Your task to perform on an android device: Search for "bose soundlink mini" on costco, select the first entry, and add it to the cart. Image 0: 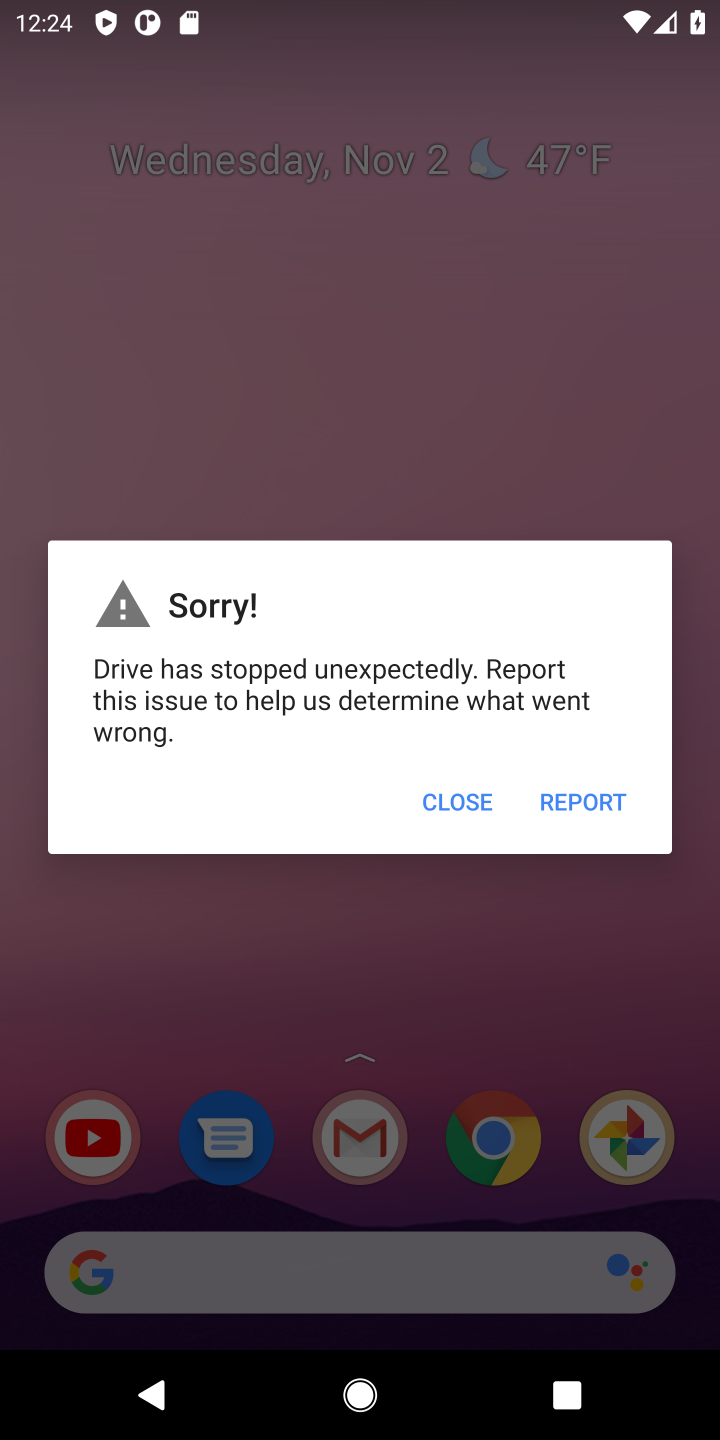
Step 0: press home button
Your task to perform on an android device: Search for "bose soundlink mini" on costco, select the first entry, and add it to the cart. Image 1: 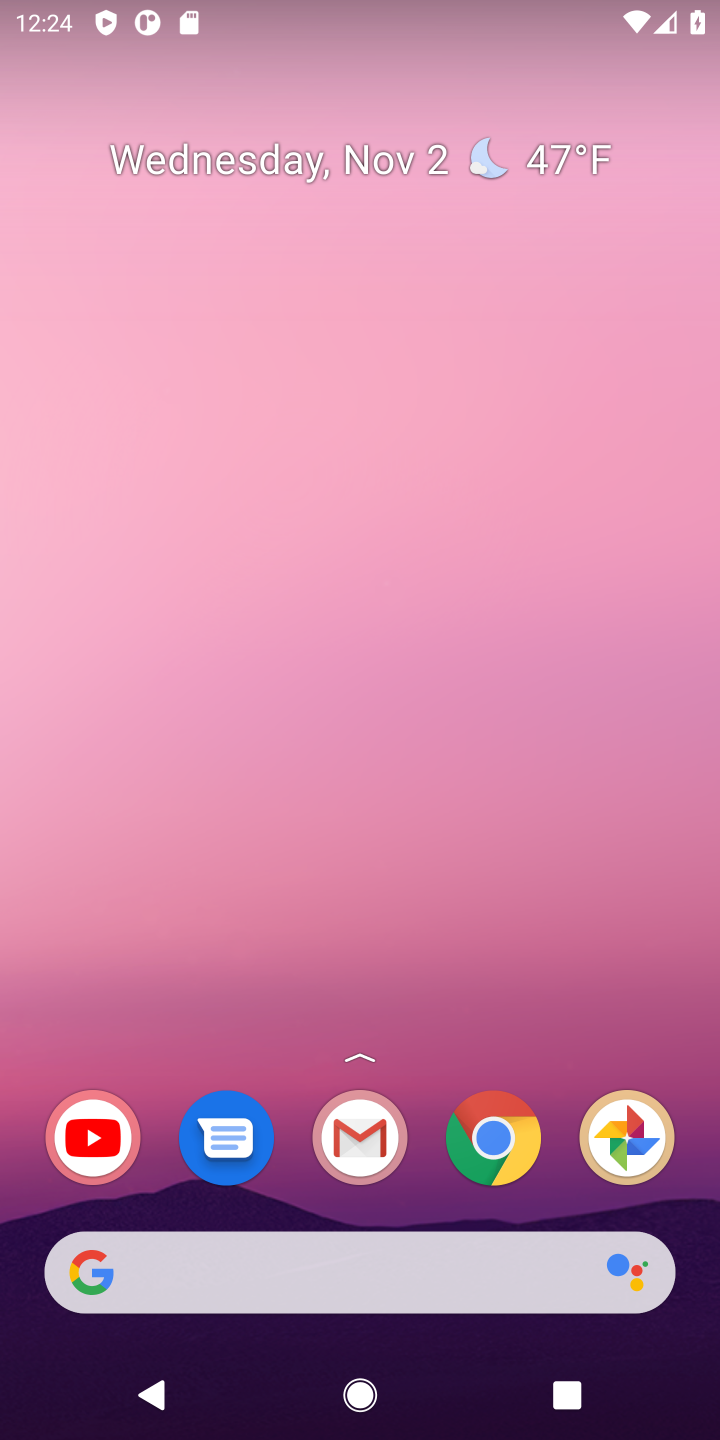
Step 1: drag from (461, 1343) to (705, 426)
Your task to perform on an android device: Search for "bose soundlink mini" on costco, select the first entry, and add it to the cart. Image 2: 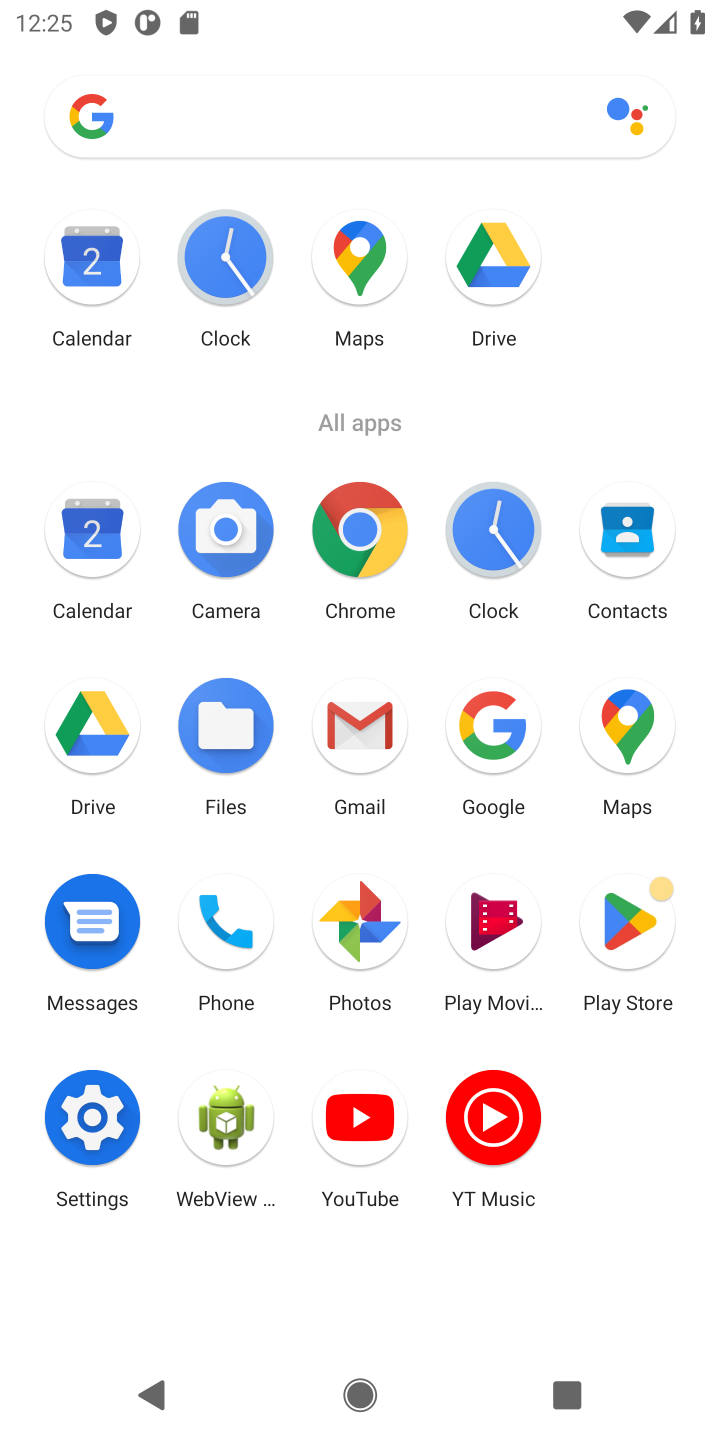
Step 2: click (372, 541)
Your task to perform on an android device: Search for "bose soundlink mini" on costco, select the first entry, and add it to the cart. Image 3: 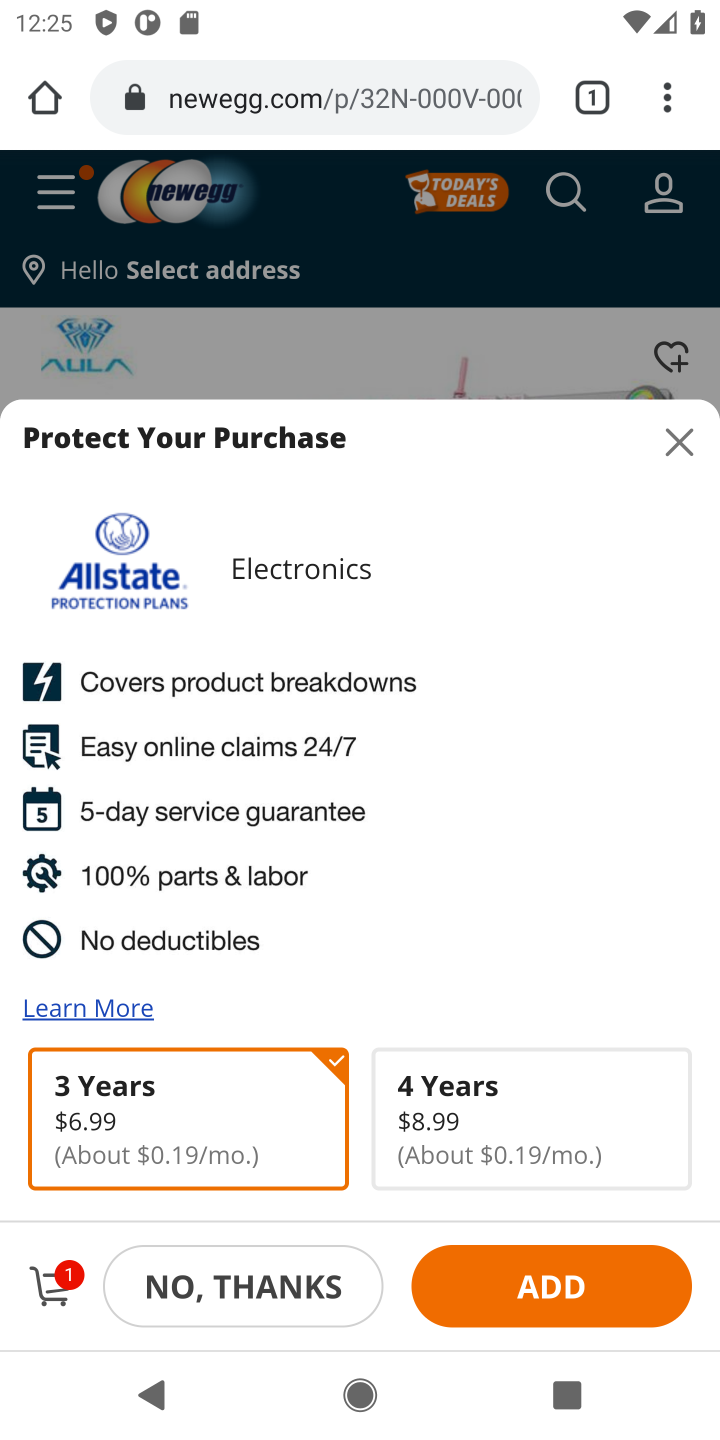
Step 3: click (270, 97)
Your task to perform on an android device: Search for "bose soundlink mini" on costco, select the first entry, and add it to the cart. Image 4: 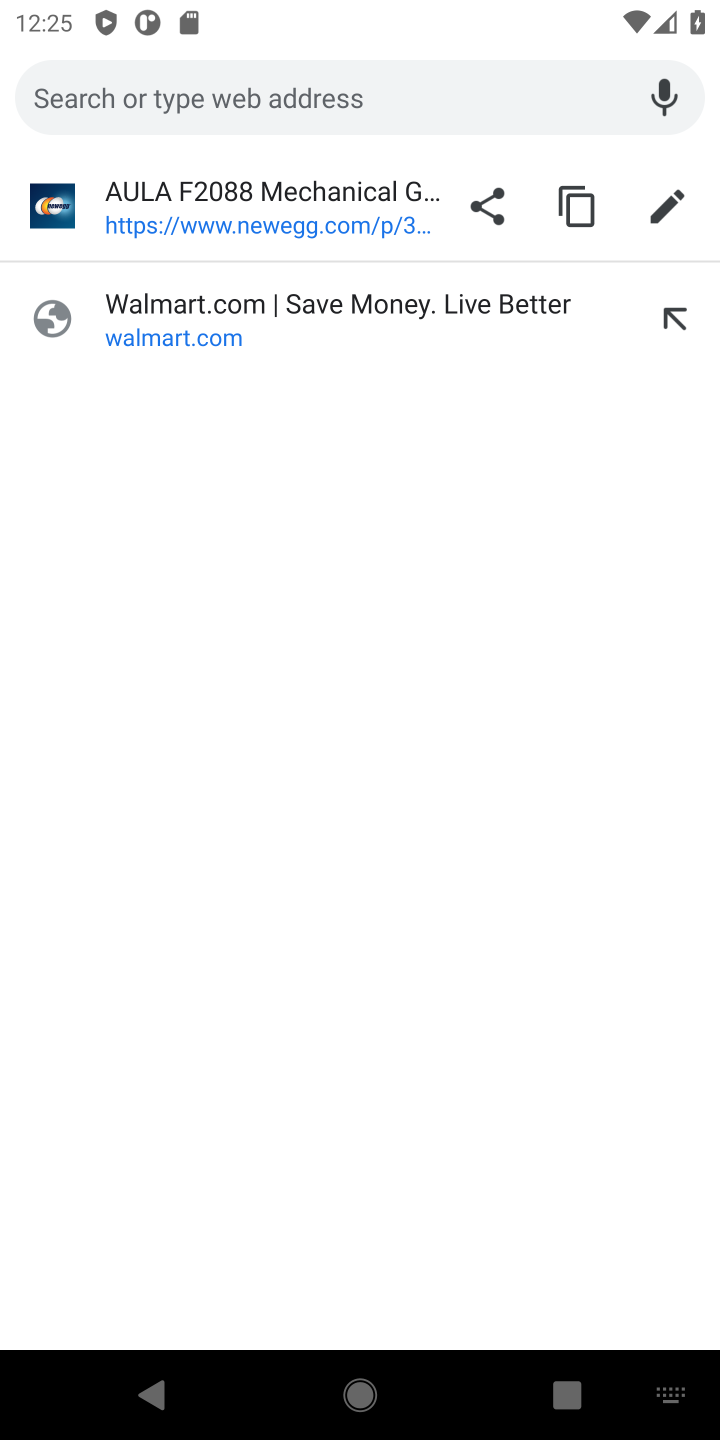
Step 4: type "costco"
Your task to perform on an android device: Search for "bose soundlink mini" on costco, select the first entry, and add it to the cart. Image 5: 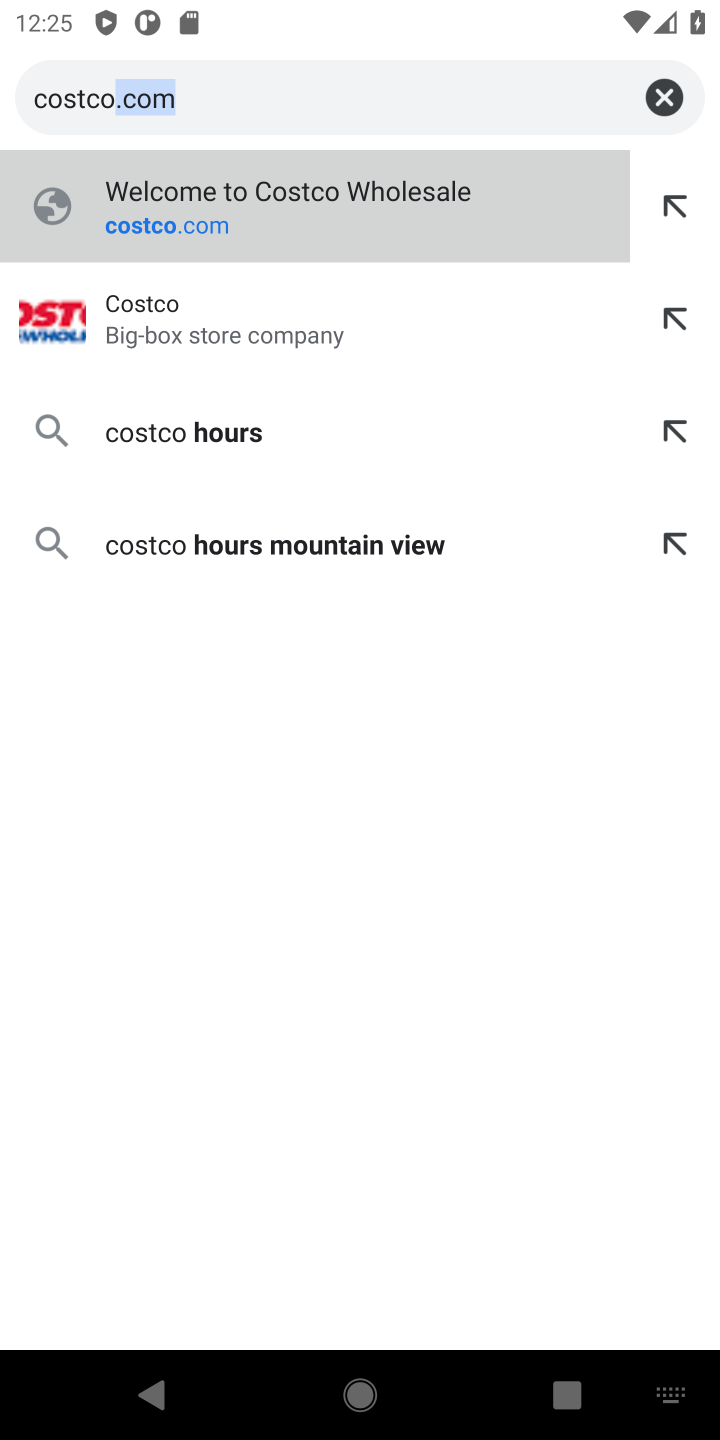
Step 5: click (166, 226)
Your task to perform on an android device: Search for "bose soundlink mini" on costco, select the first entry, and add it to the cart. Image 6: 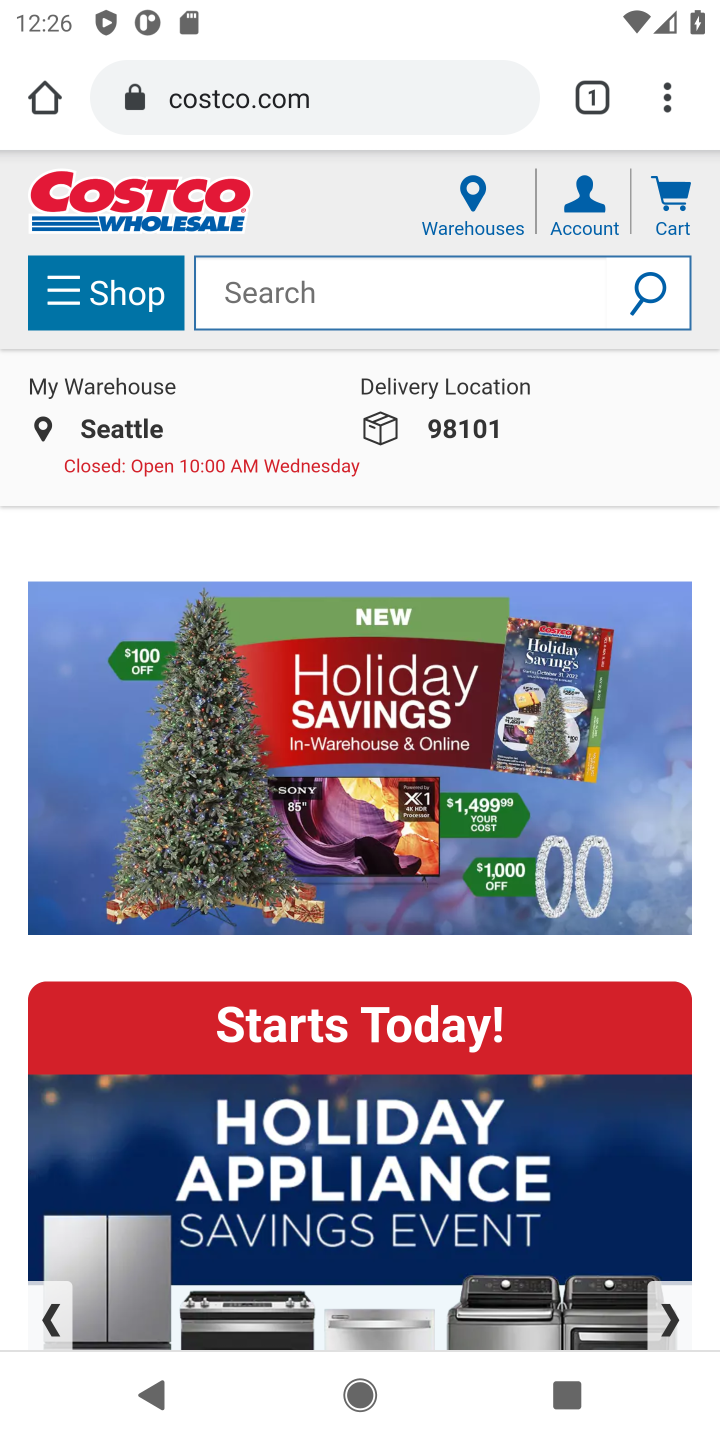
Step 6: click (365, 279)
Your task to perform on an android device: Search for "bose soundlink mini" on costco, select the first entry, and add it to the cart. Image 7: 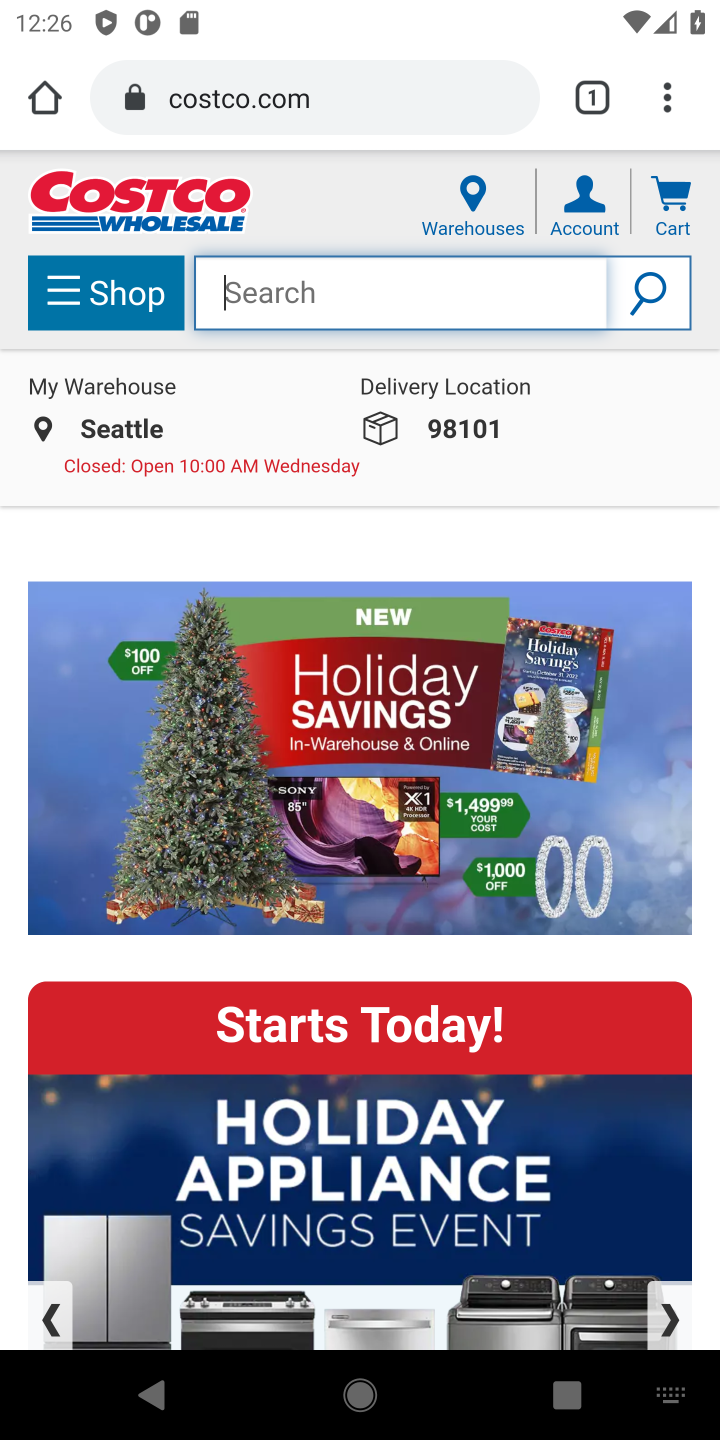
Step 7: type "bose soundlink mini"
Your task to perform on an android device: Search for "bose soundlink mini" on costco, select the first entry, and add it to the cart. Image 8: 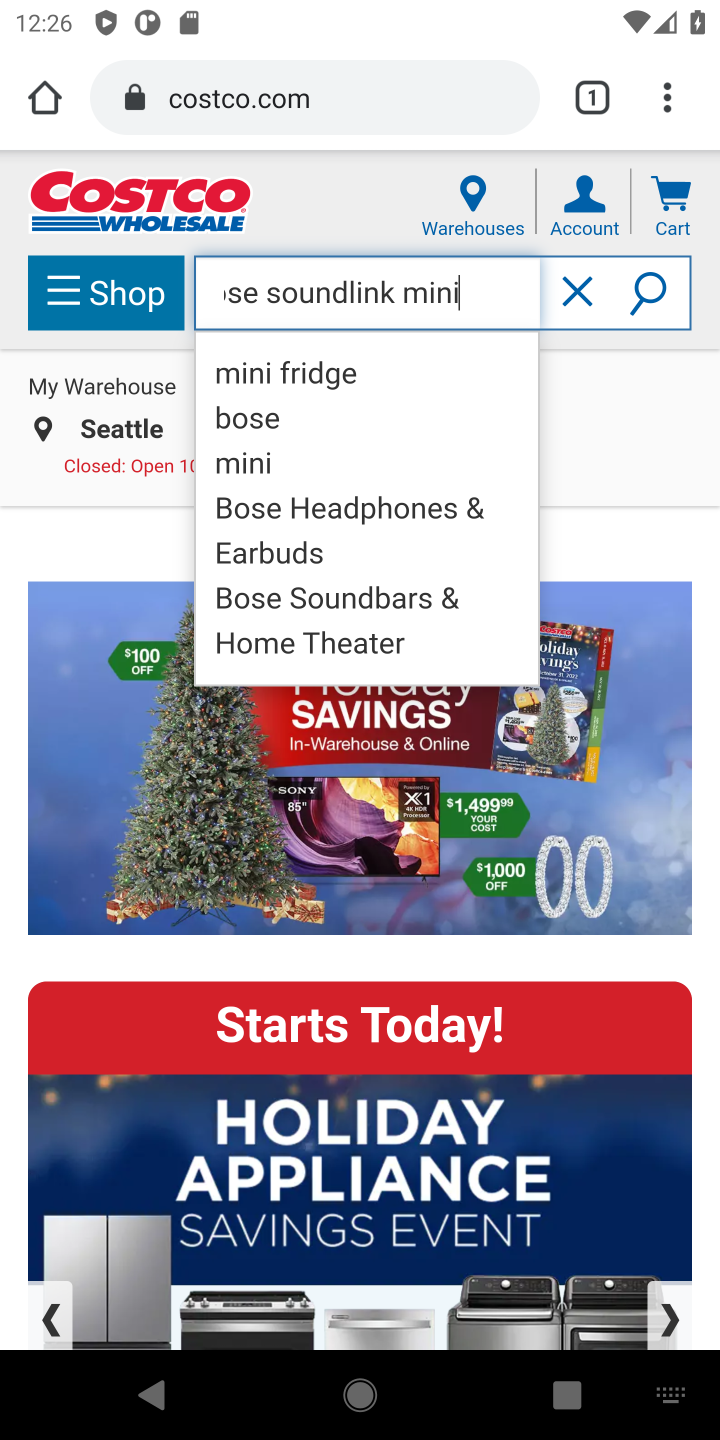
Step 8: click (650, 286)
Your task to perform on an android device: Search for "bose soundlink mini" on costco, select the first entry, and add it to the cart. Image 9: 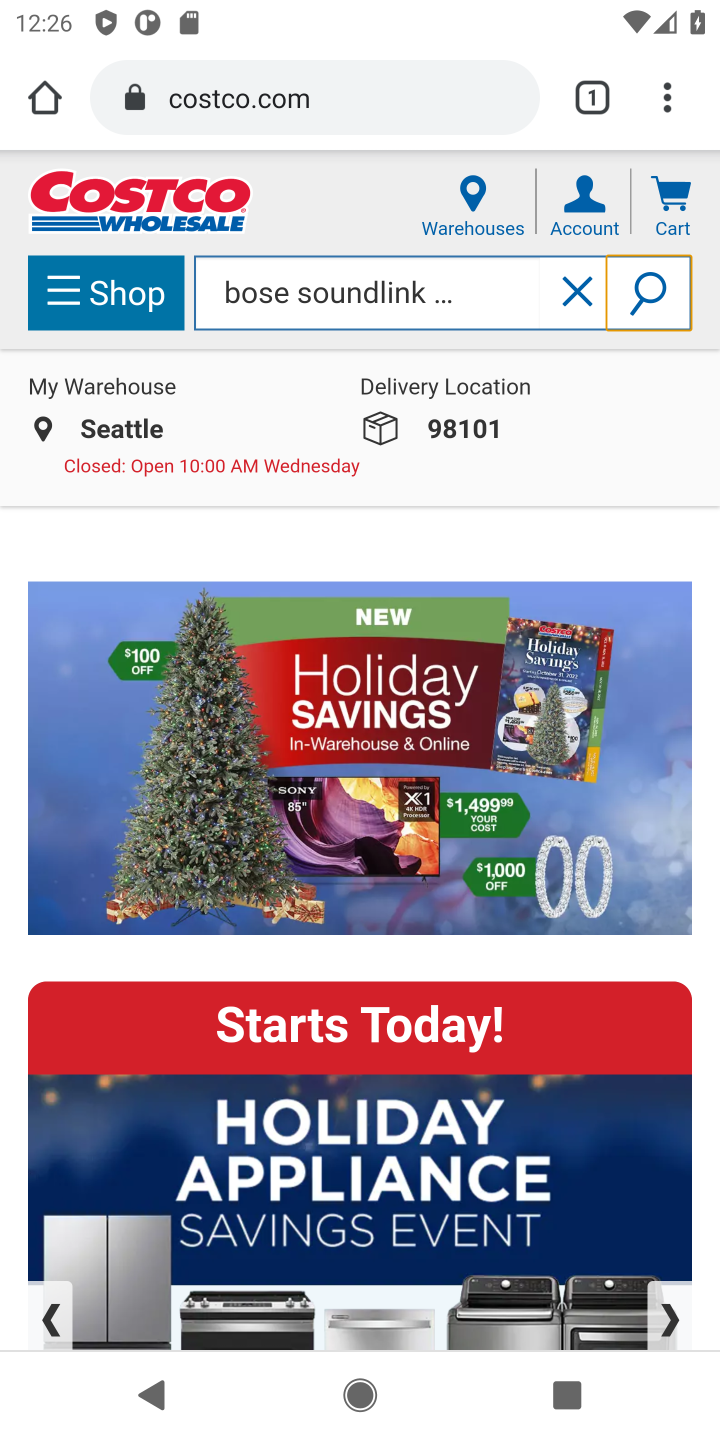
Step 9: click (643, 293)
Your task to perform on an android device: Search for "bose soundlink mini" on costco, select the first entry, and add it to the cart. Image 10: 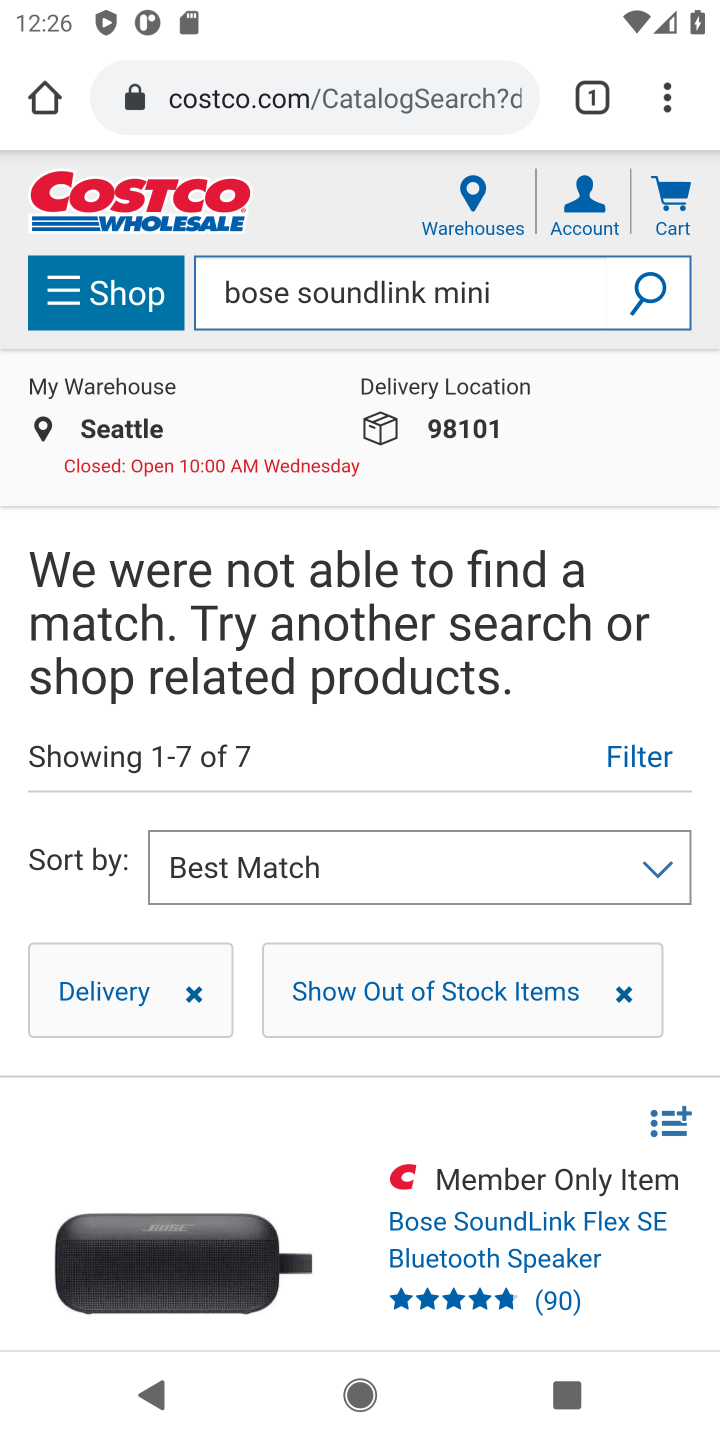
Step 10: task complete